Your task to perform on an android device: turn off location Image 0: 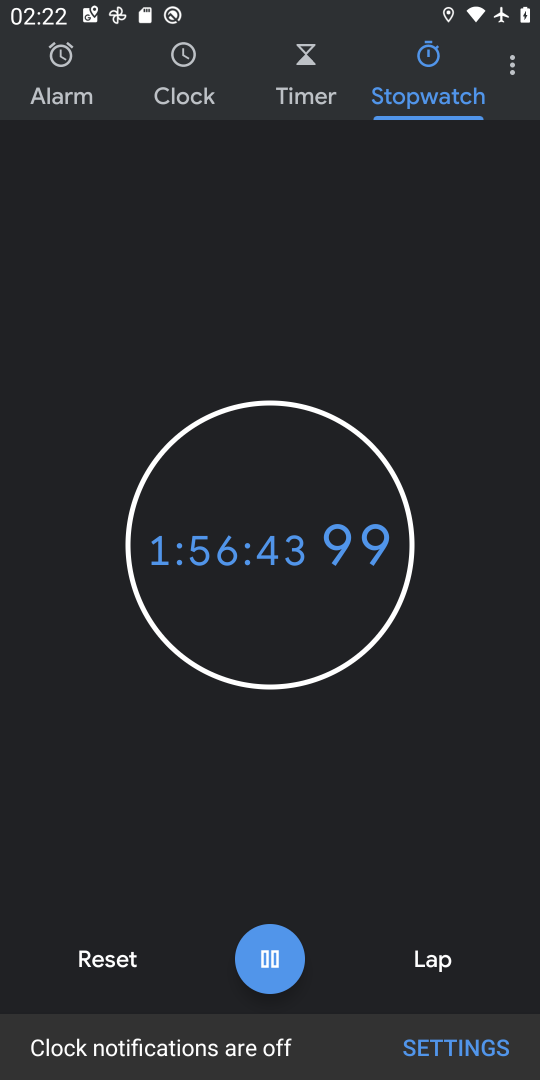
Step 0: press home button
Your task to perform on an android device: turn off location Image 1: 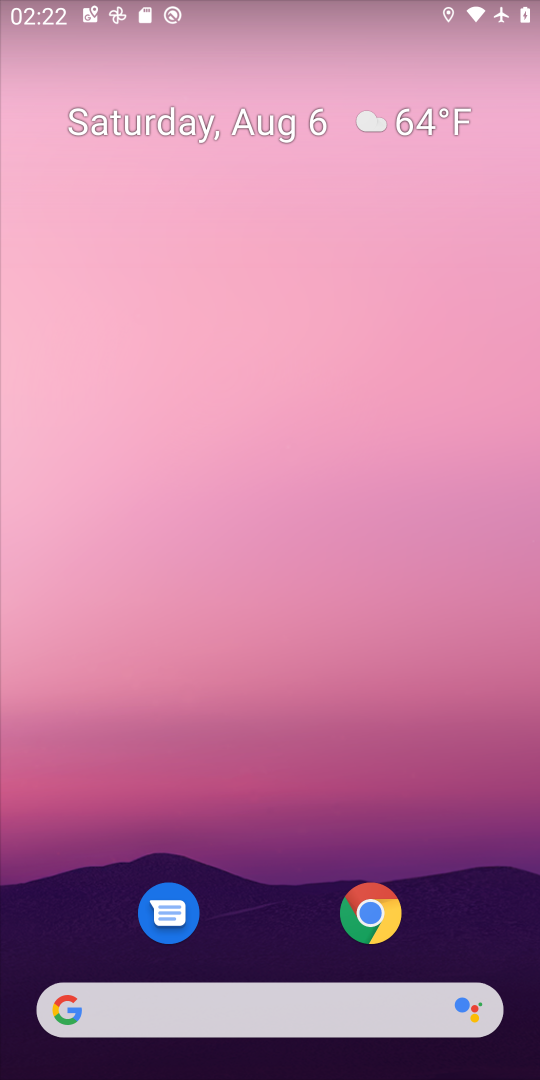
Step 1: drag from (422, 876) to (426, 275)
Your task to perform on an android device: turn off location Image 2: 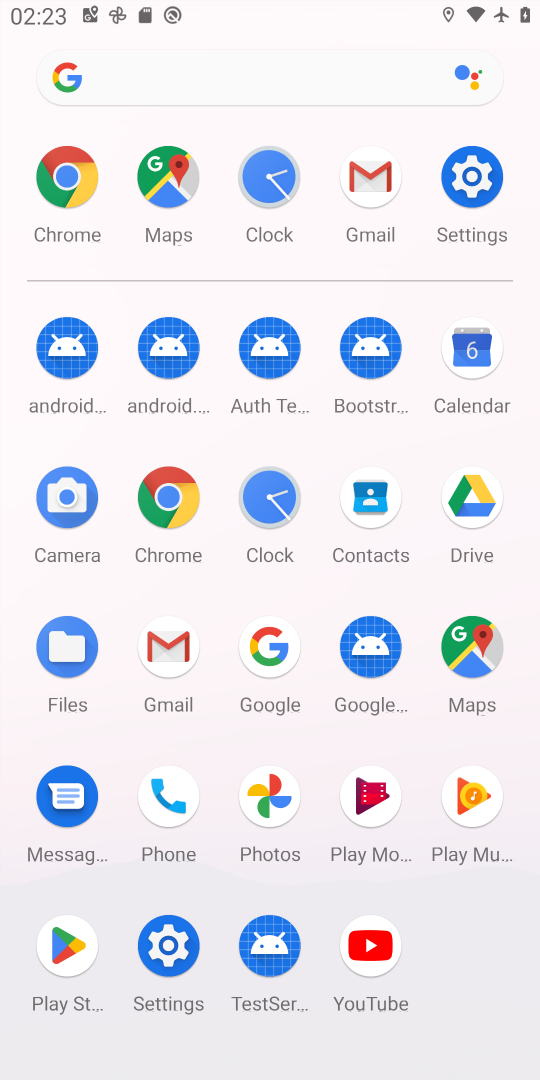
Step 2: click (477, 178)
Your task to perform on an android device: turn off location Image 3: 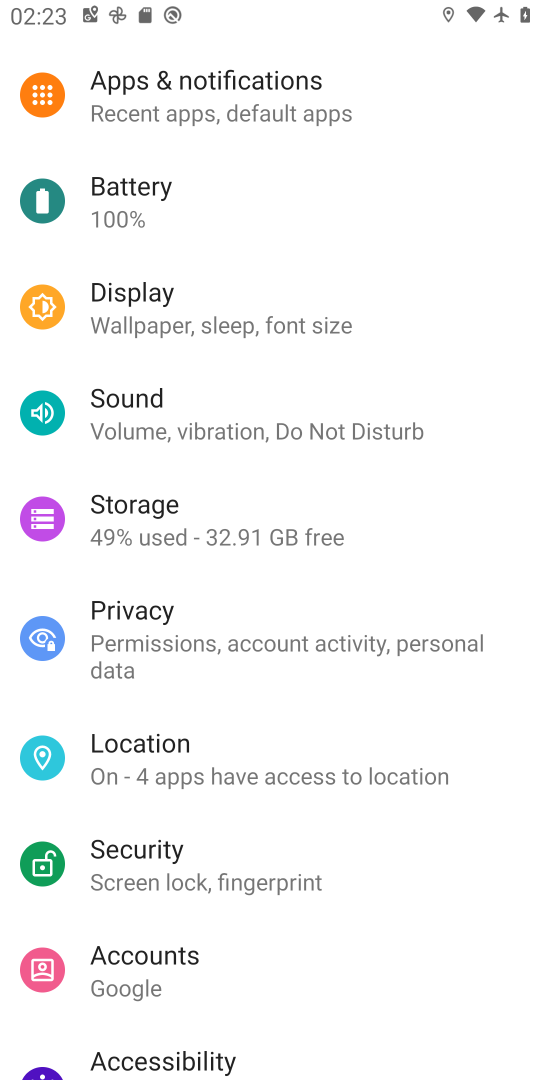
Step 3: drag from (461, 708) to (460, 584)
Your task to perform on an android device: turn off location Image 4: 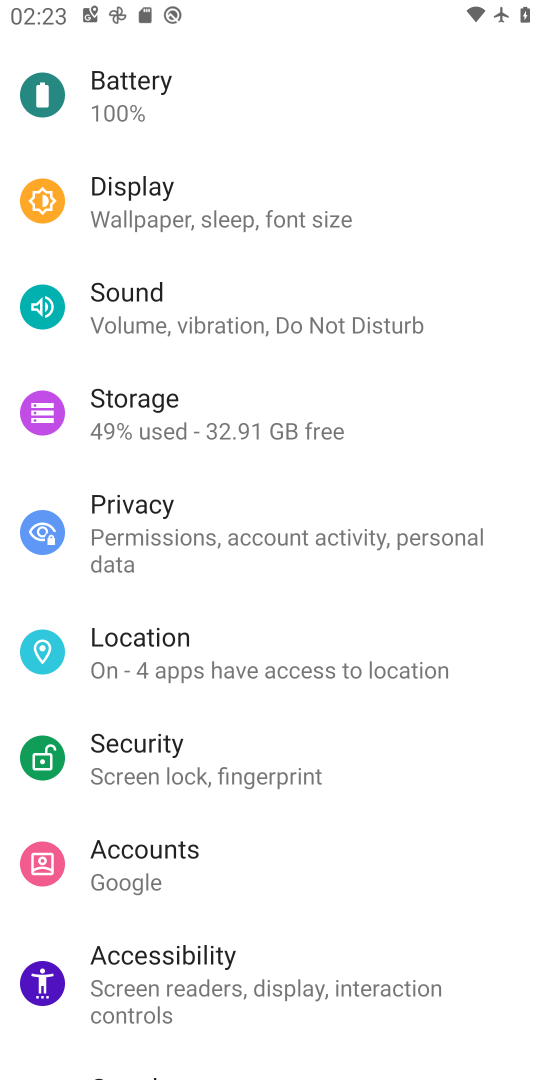
Step 4: drag from (429, 798) to (438, 640)
Your task to perform on an android device: turn off location Image 5: 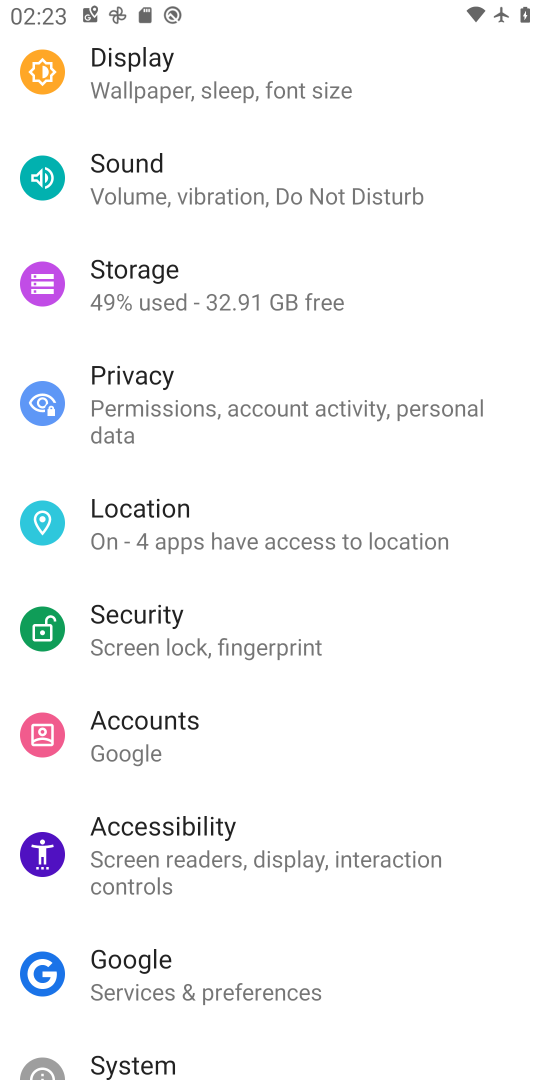
Step 5: drag from (461, 808) to (460, 588)
Your task to perform on an android device: turn off location Image 6: 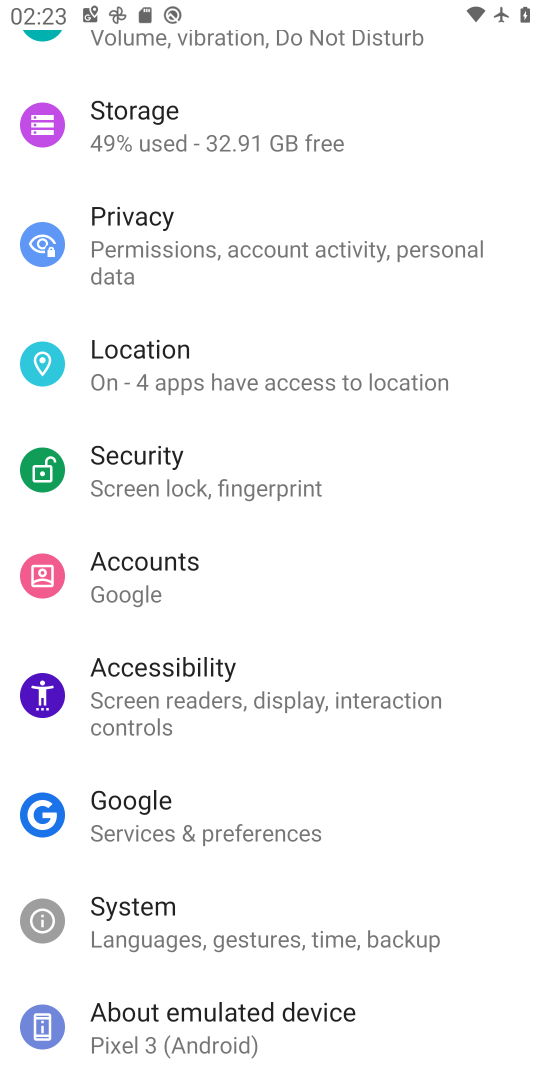
Step 6: click (296, 357)
Your task to perform on an android device: turn off location Image 7: 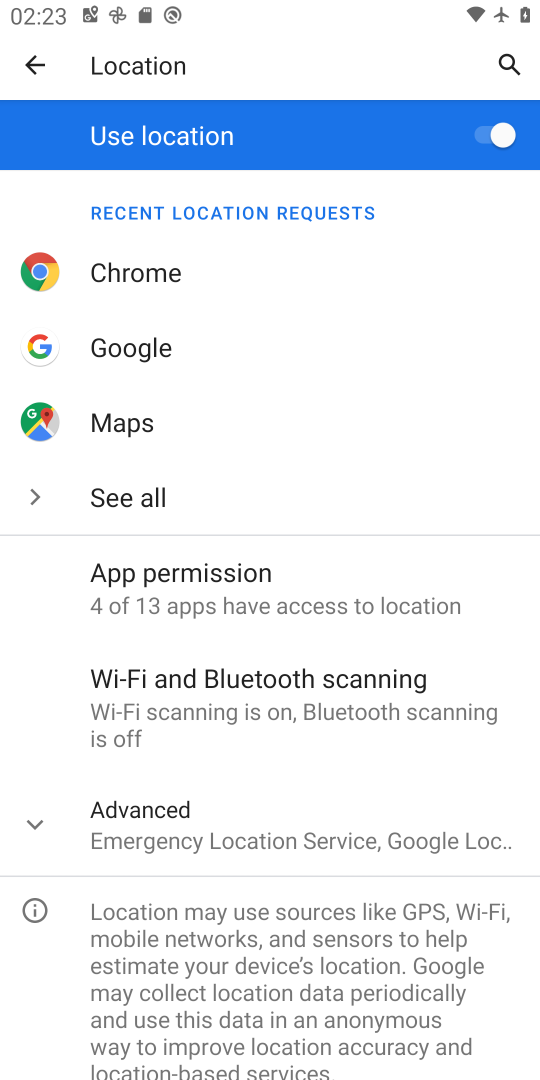
Step 7: click (497, 133)
Your task to perform on an android device: turn off location Image 8: 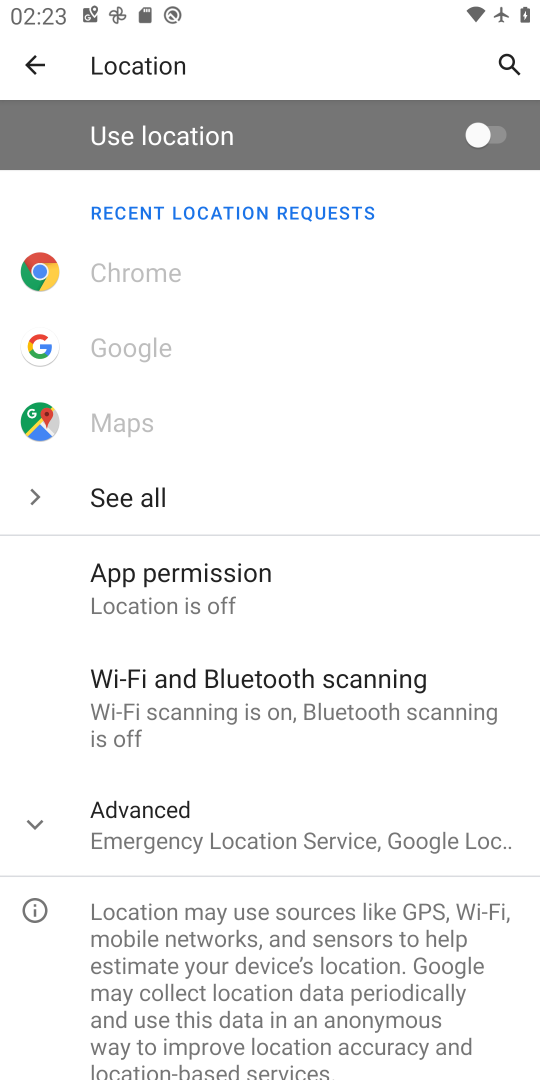
Step 8: task complete